Your task to perform on an android device: Open internet settings Image 0: 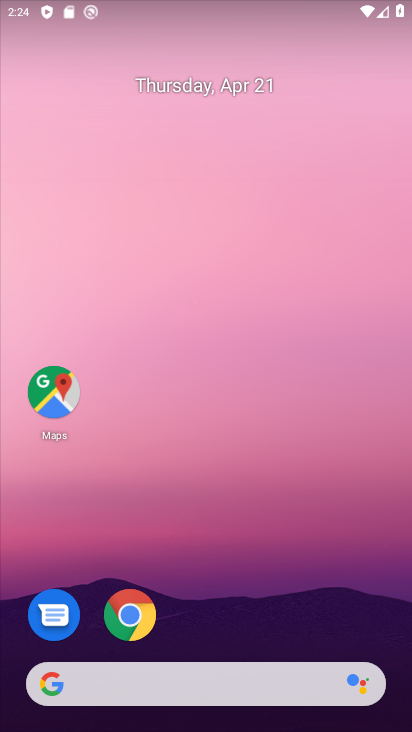
Step 0: drag from (213, 563) to (234, 22)
Your task to perform on an android device: Open internet settings Image 1: 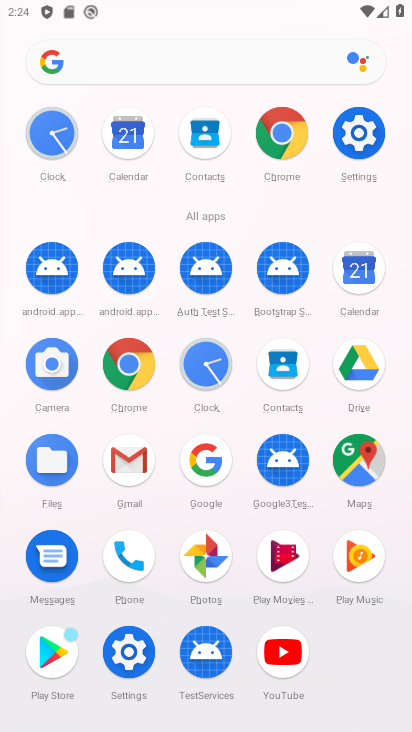
Step 1: click (360, 130)
Your task to perform on an android device: Open internet settings Image 2: 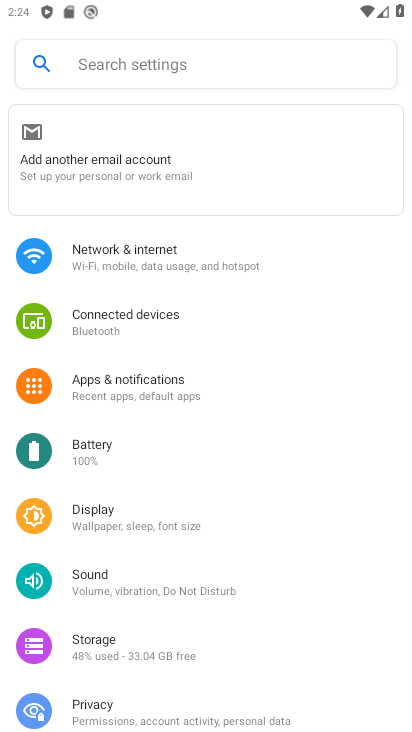
Step 2: click (144, 252)
Your task to perform on an android device: Open internet settings Image 3: 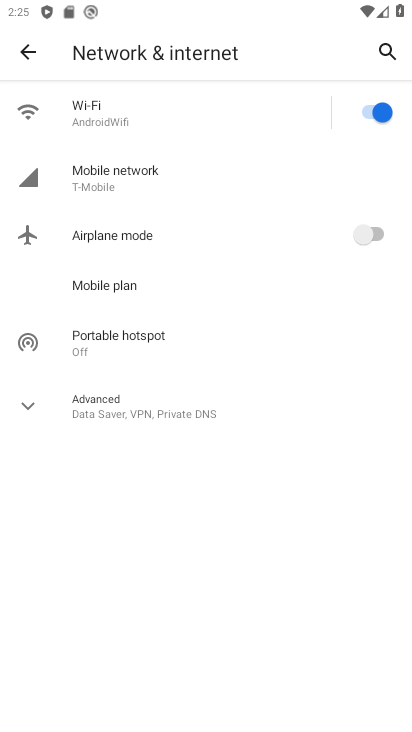
Step 3: task complete